Your task to perform on an android device: Do I have any events today? Image 0: 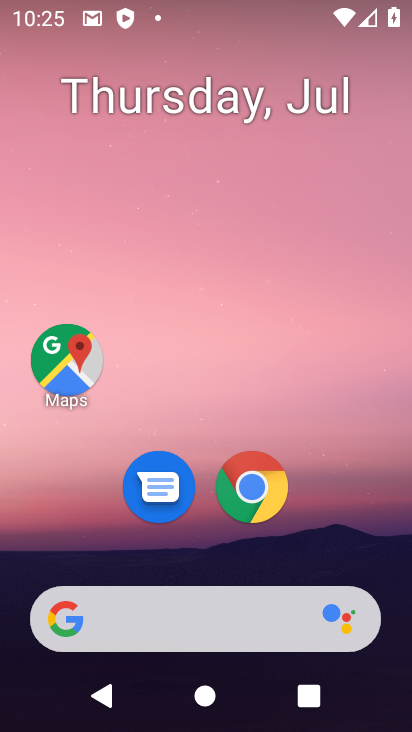
Step 0: drag from (186, 579) to (258, 11)
Your task to perform on an android device: Do I have any events today? Image 1: 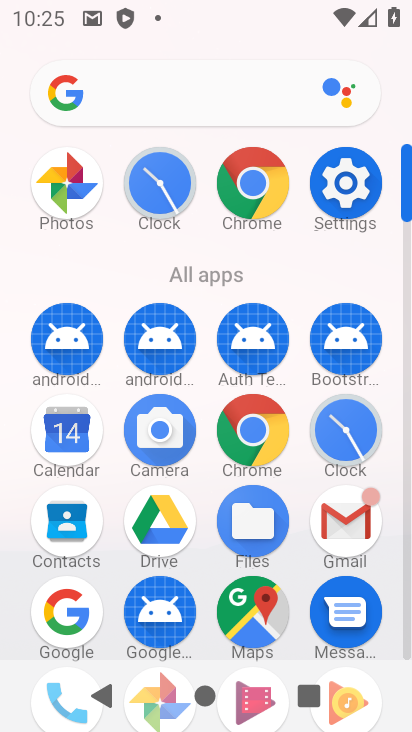
Step 1: click (68, 433)
Your task to perform on an android device: Do I have any events today? Image 2: 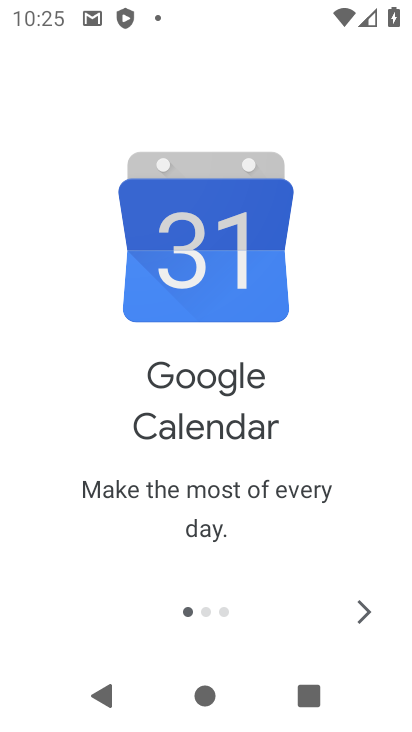
Step 2: click (369, 605)
Your task to perform on an android device: Do I have any events today? Image 3: 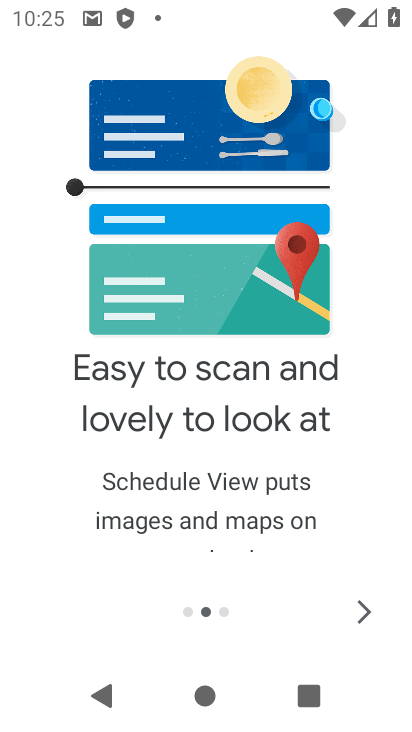
Step 3: click (369, 605)
Your task to perform on an android device: Do I have any events today? Image 4: 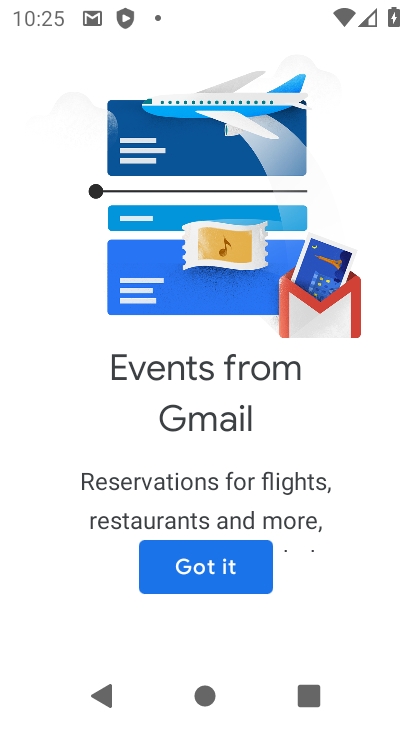
Step 4: click (219, 567)
Your task to perform on an android device: Do I have any events today? Image 5: 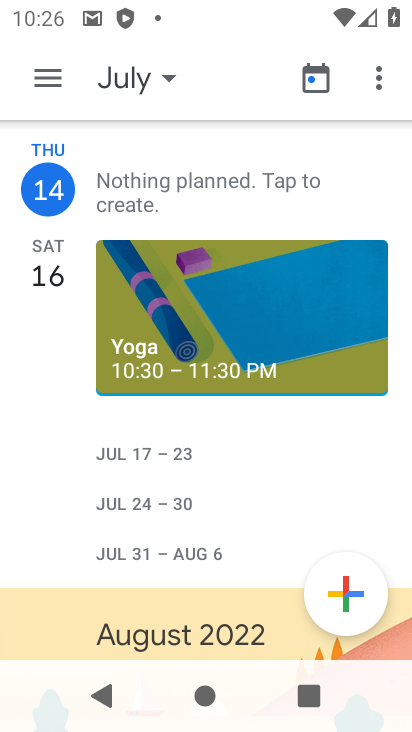
Step 5: click (167, 66)
Your task to perform on an android device: Do I have any events today? Image 6: 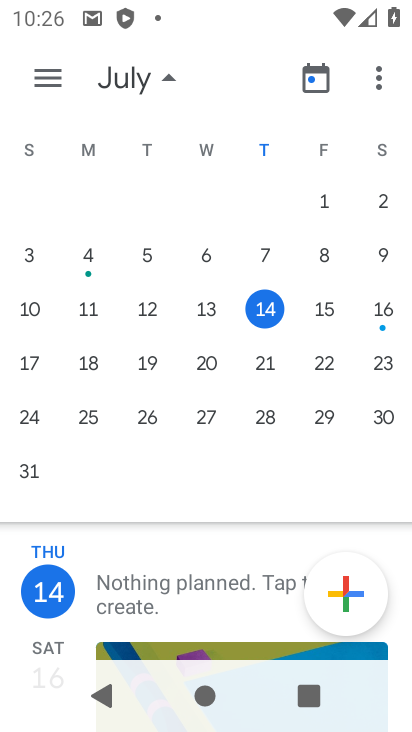
Step 6: click (270, 307)
Your task to perform on an android device: Do I have any events today? Image 7: 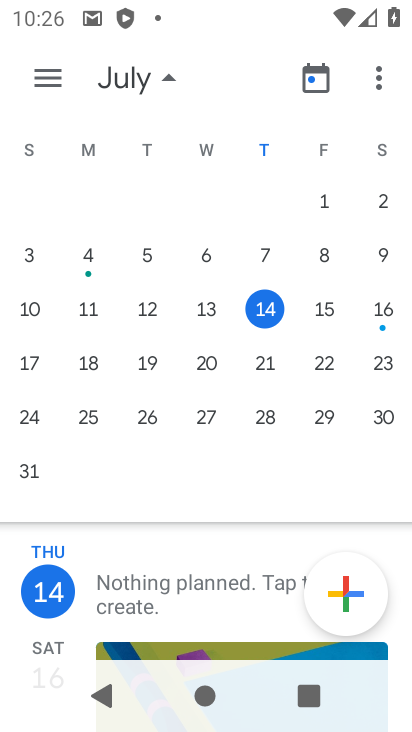
Step 7: task complete